Your task to perform on an android device: open wifi settings Image 0: 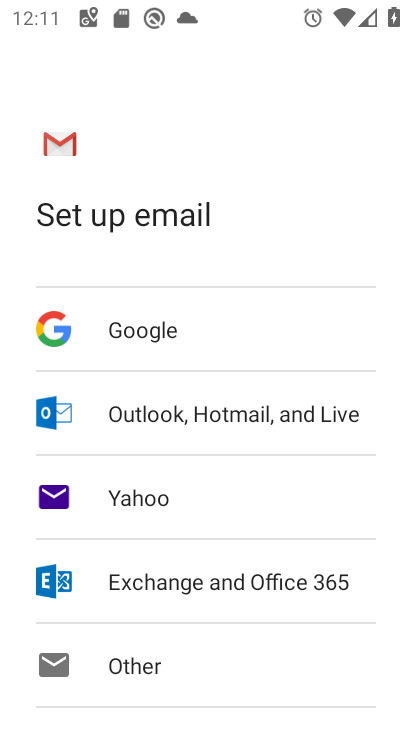
Step 0: press home button
Your task to perform on an android device: open wifi settings Image 1: 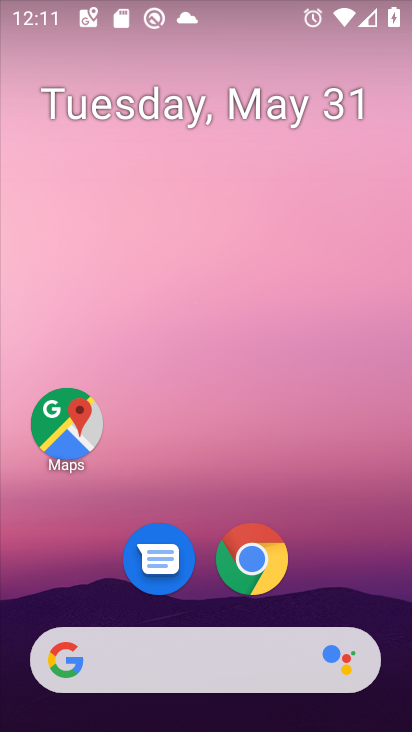
Step 1: drag from (391, 594) to (200, 30)
Your task to perform on an android device: open wifi settings Image 2: 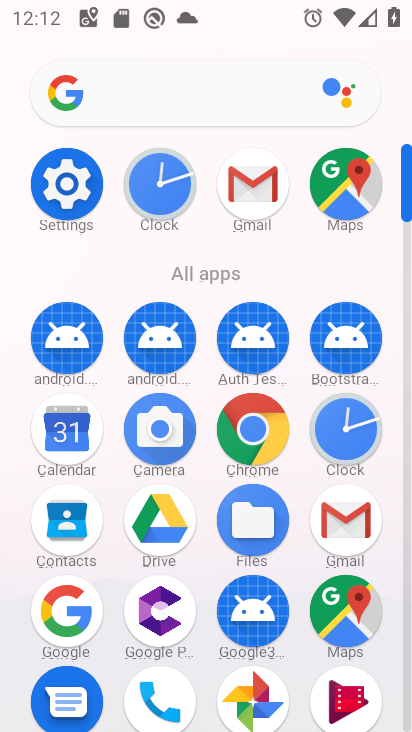
Step 2: click (79, 201)
Your task to perform on an android device: open wifi settings Image 3: 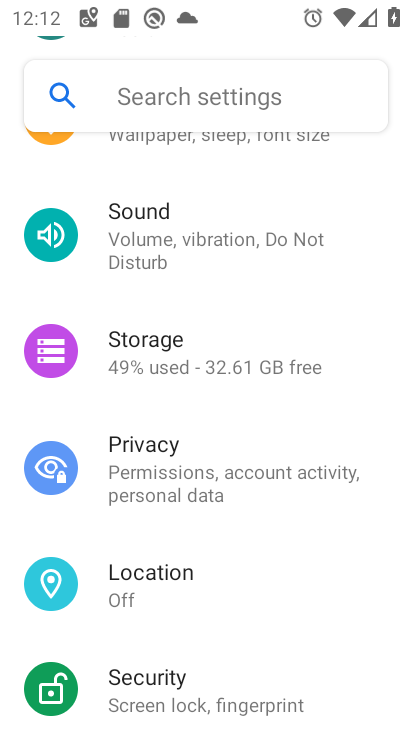
Step 3: drag from (172, 177) to (234, 657)
Your task to perform on an android device: open wifi settings Image 4: 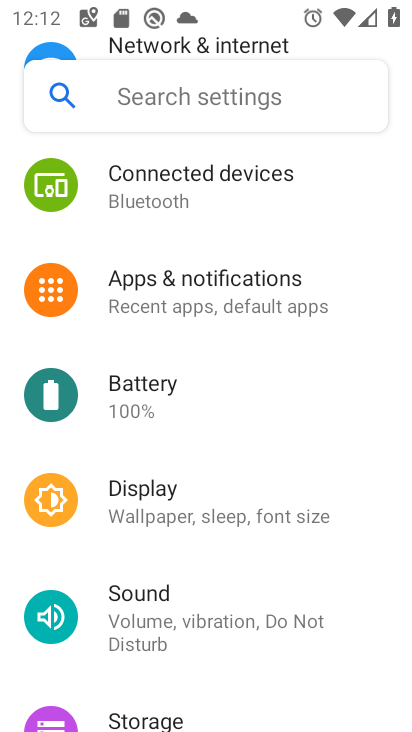
Step 4: drag from (210, 247) to (223, 657)
Your task to perform on an android device: open wifi settings Image 5: 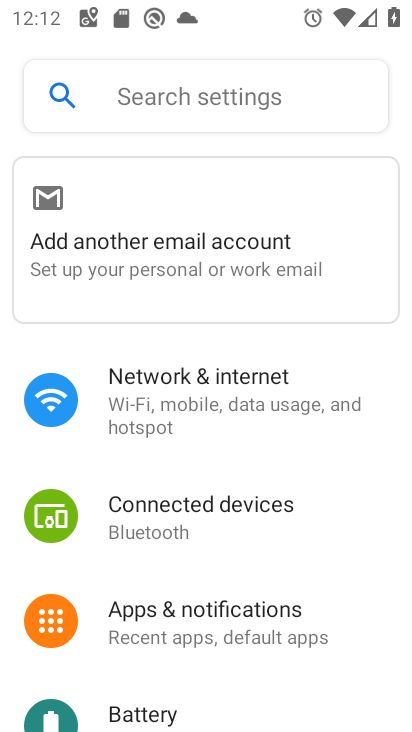
Step 5: click (213, 378)
Your task to perform on an android device: open wifi settings Image 6: 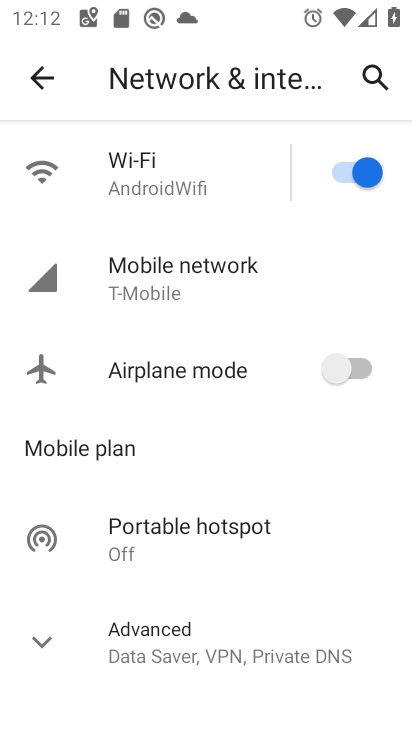
Step 6: click (190, 184)
Your task to perform on an android device: open wifi settings Image 7: 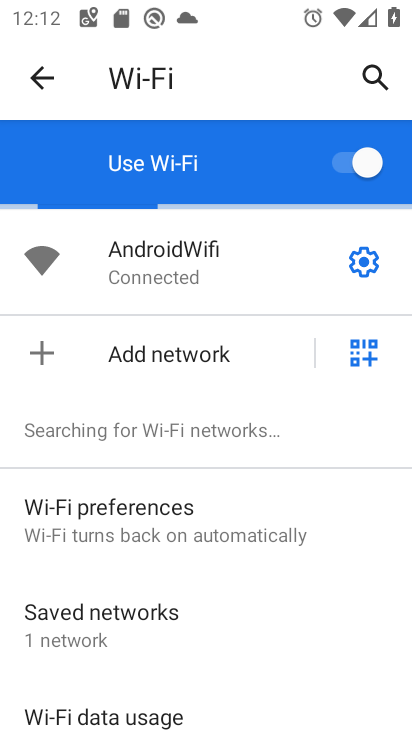
Step 7: task complete